Your task to perform on an android device: Clear the cart on amazon. Search for razer blade on amazon, select the first entry, add it to the cart, then select checkout. Image 0: 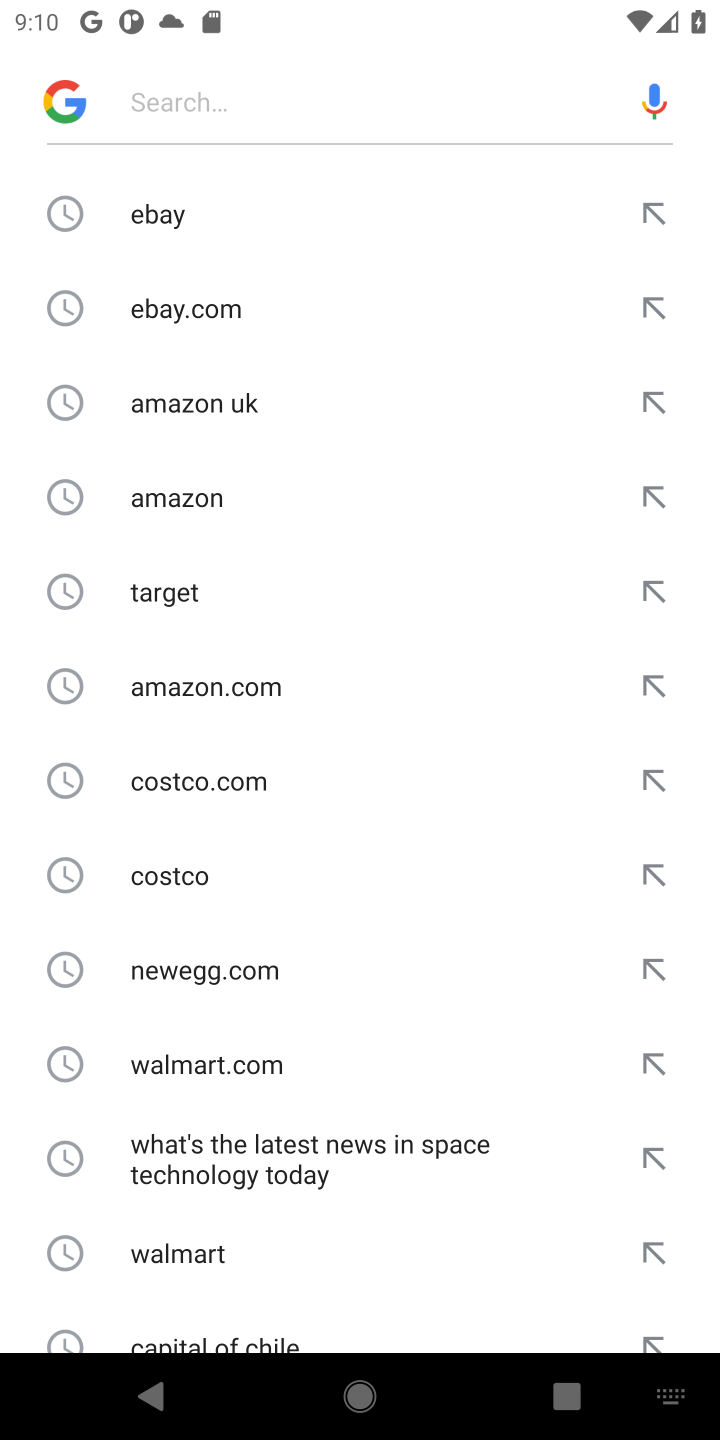
Step 0: click (241, 687)
Your task to perform on an android device: Clear the cart on amazon. Search for razer blade on amazon, select the first entry, add it to the cart, then select checkout. Image 1: 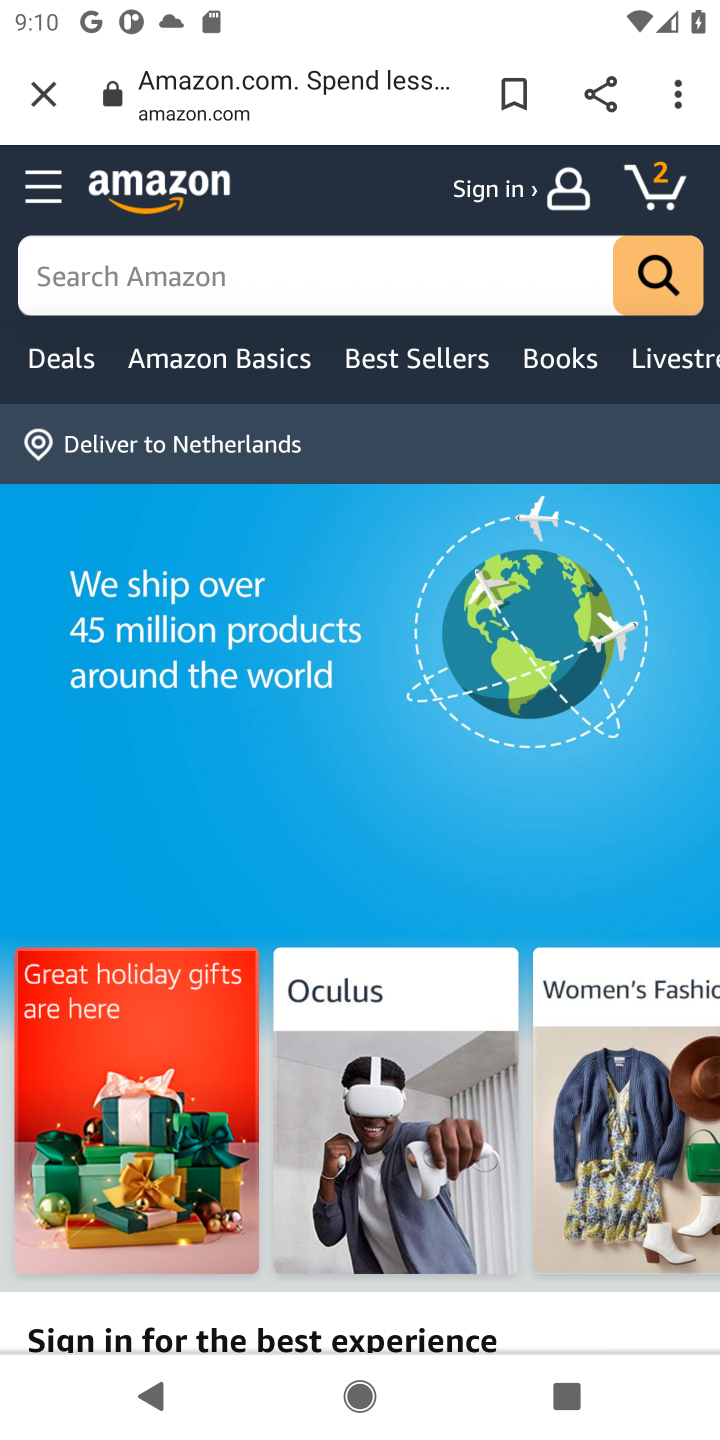
Step 1: click (654, 186)
Your task to perform on an android device: Clear the cart on amazon. Search for razer blade on amazon, select the first entry, add it to the cart, then select checkout. Image 2: 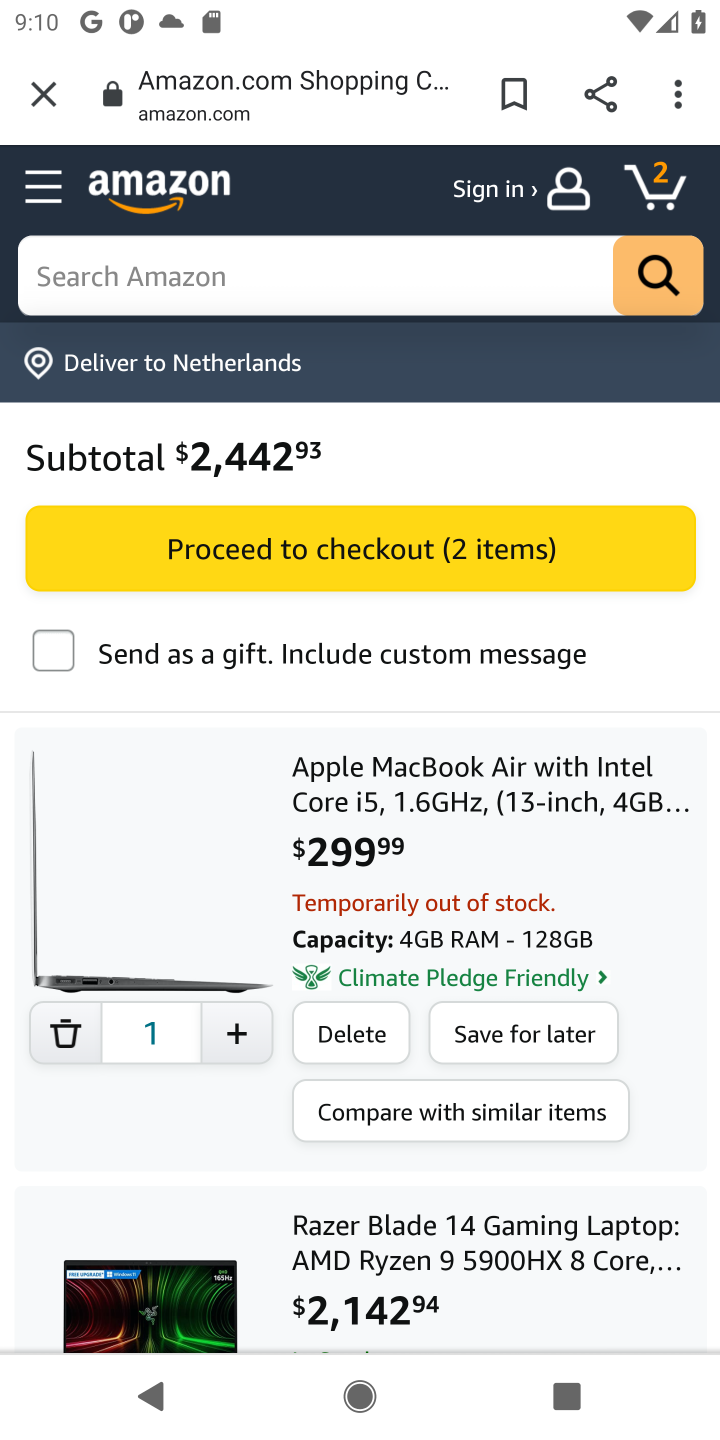
Step 2: click (355, 1031)
Your task to perform on an android device: Clear the cart on amazon. Search for razer blade on amazon, select the first entry, add it to the cart, then select checkout. Image 3: 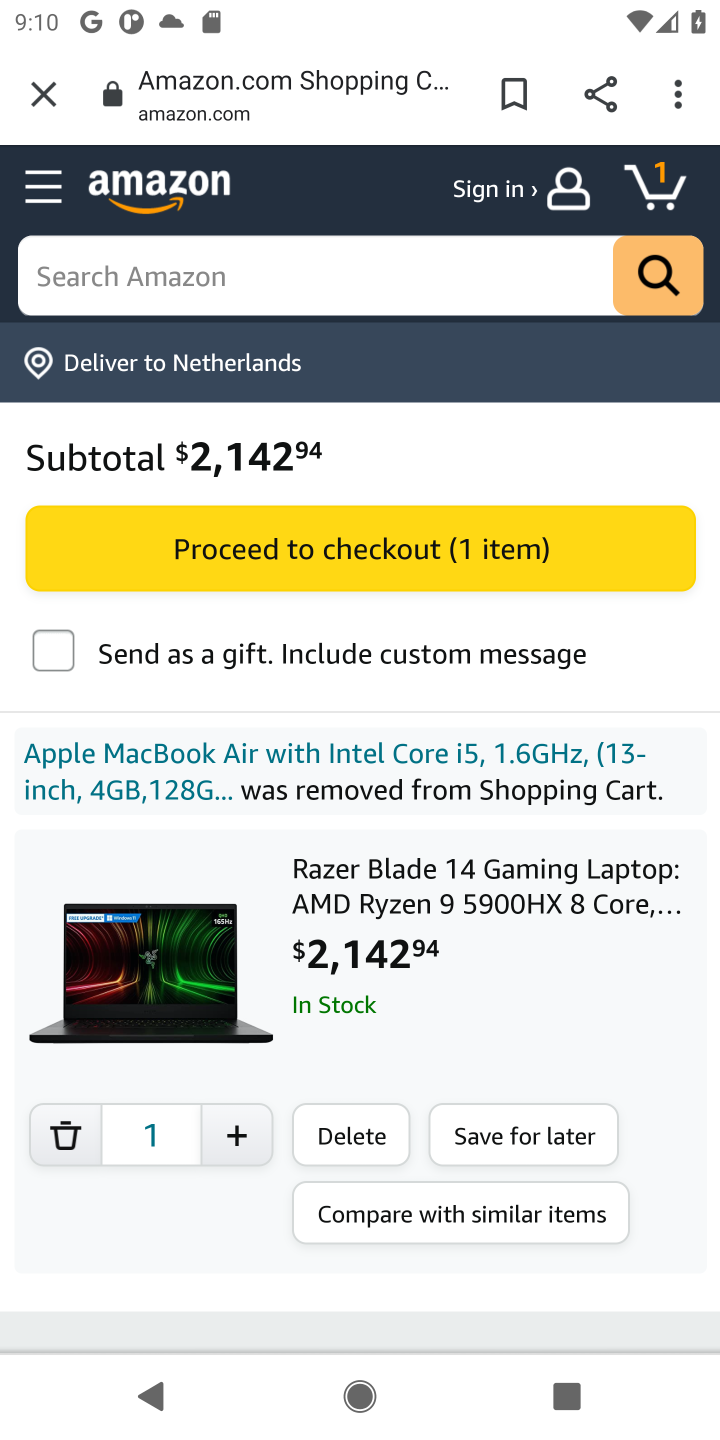
Step 3: click (364, 1132)
Your task to perform on an android device: Clear the cart on amazon. Search for razer blade on amazon, select the first entry, add it to the cart, then select checkout. Image 4: 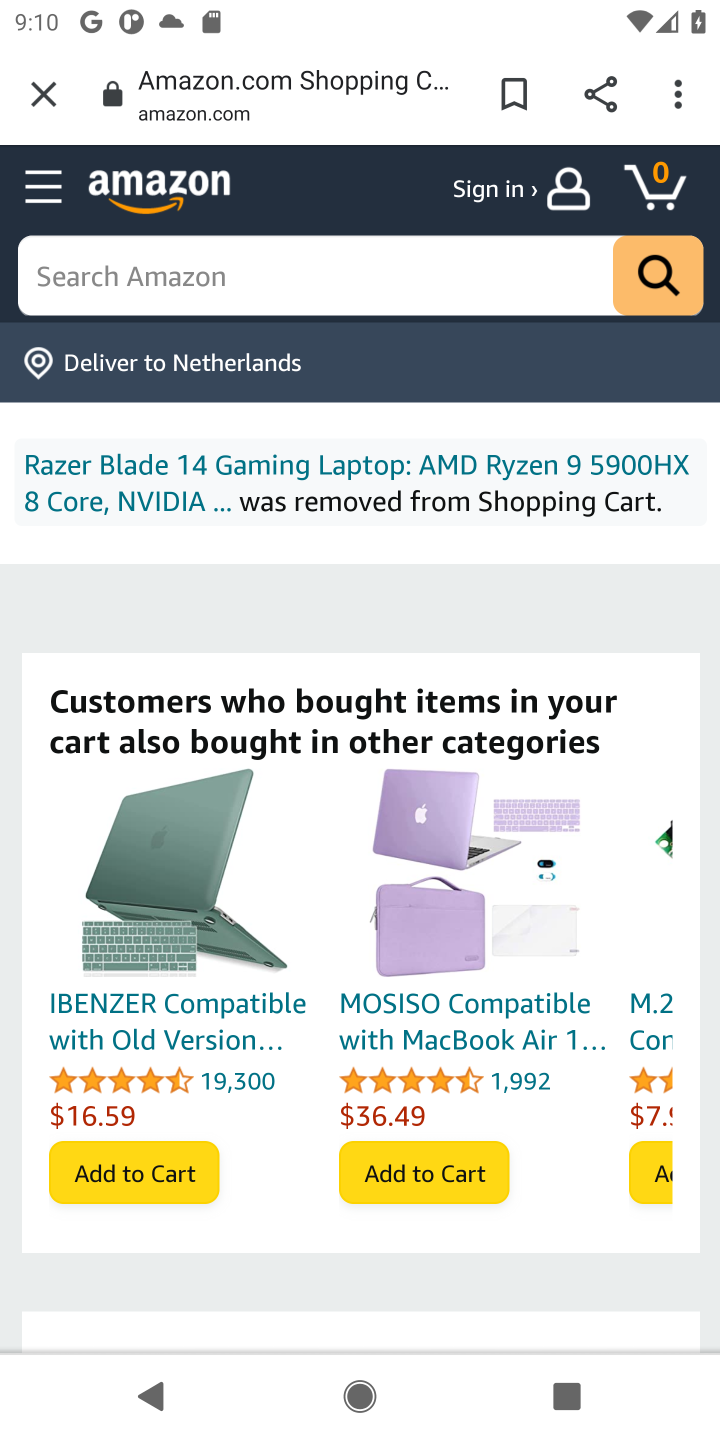
Step 4: click (164, 265)
Your task to perform on an android device: Clear the cart on amazon. Search for razer blade on amazon, select the first entry, add it to the cart, then select checkout. Image 5: 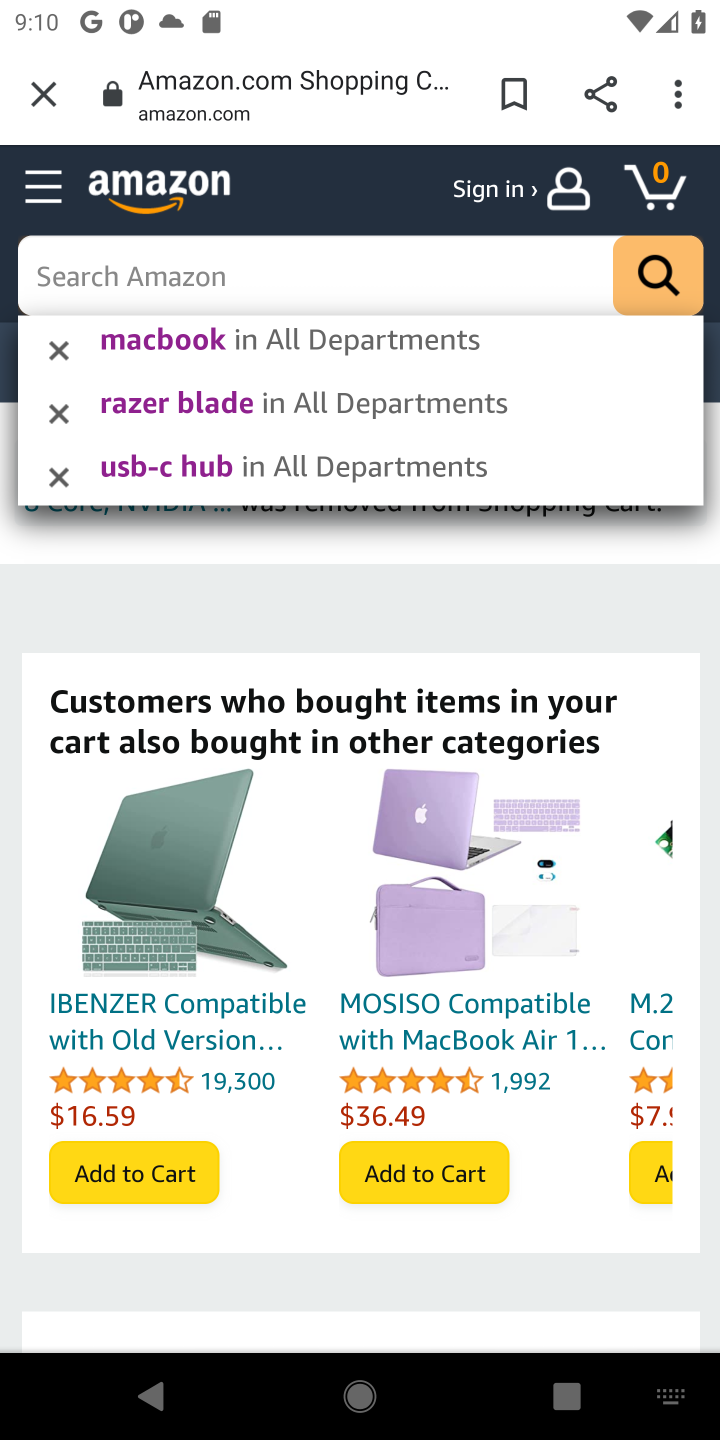
Step 5: type "razer blade"
Your task to perform on an android device: Clear the cart on amazon. Search for razer blade on amazon, select the first entry, add it to the cart, then select checkout. Image 6: 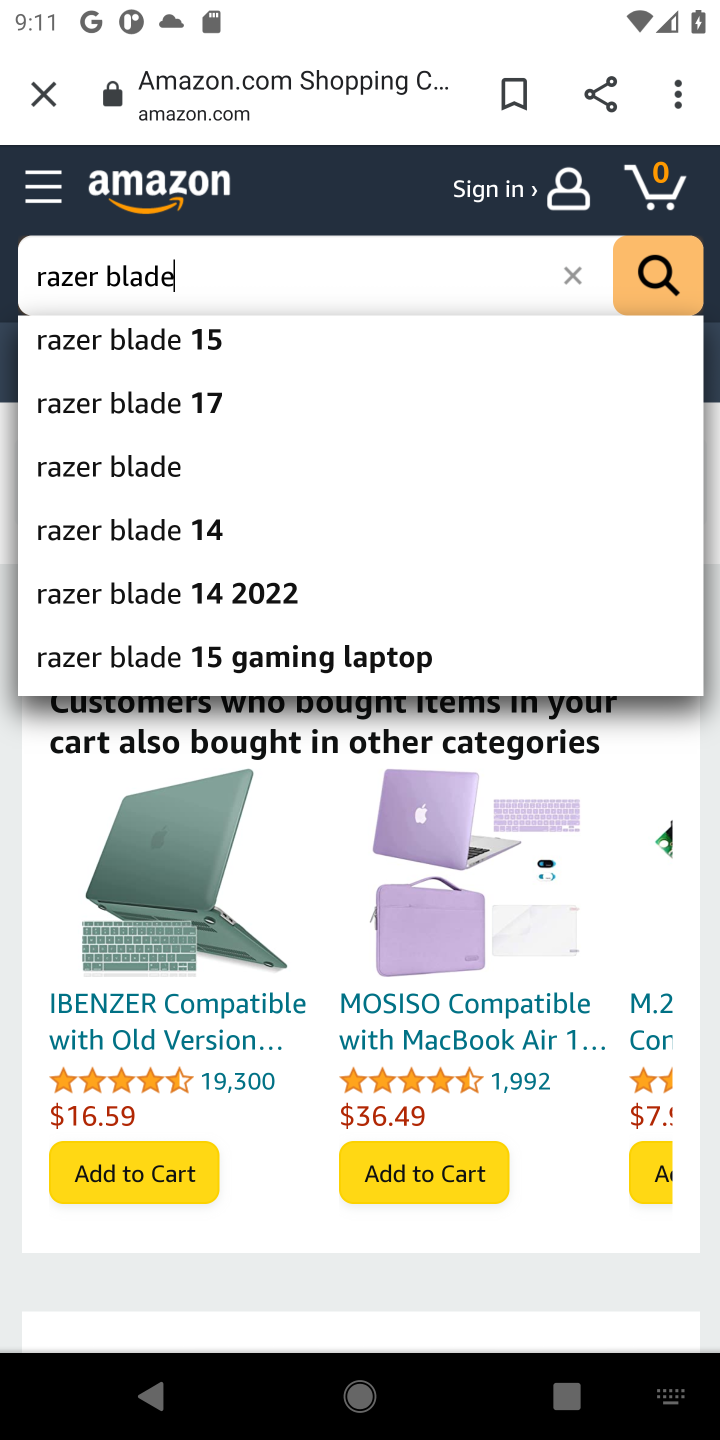
Step 6: click (113, 473)
Your task to perform on an android device: Clear the cart on amazon. Search for razer blade on amazon, select the first entry, add it to the cart, then select checkout. Image 7: 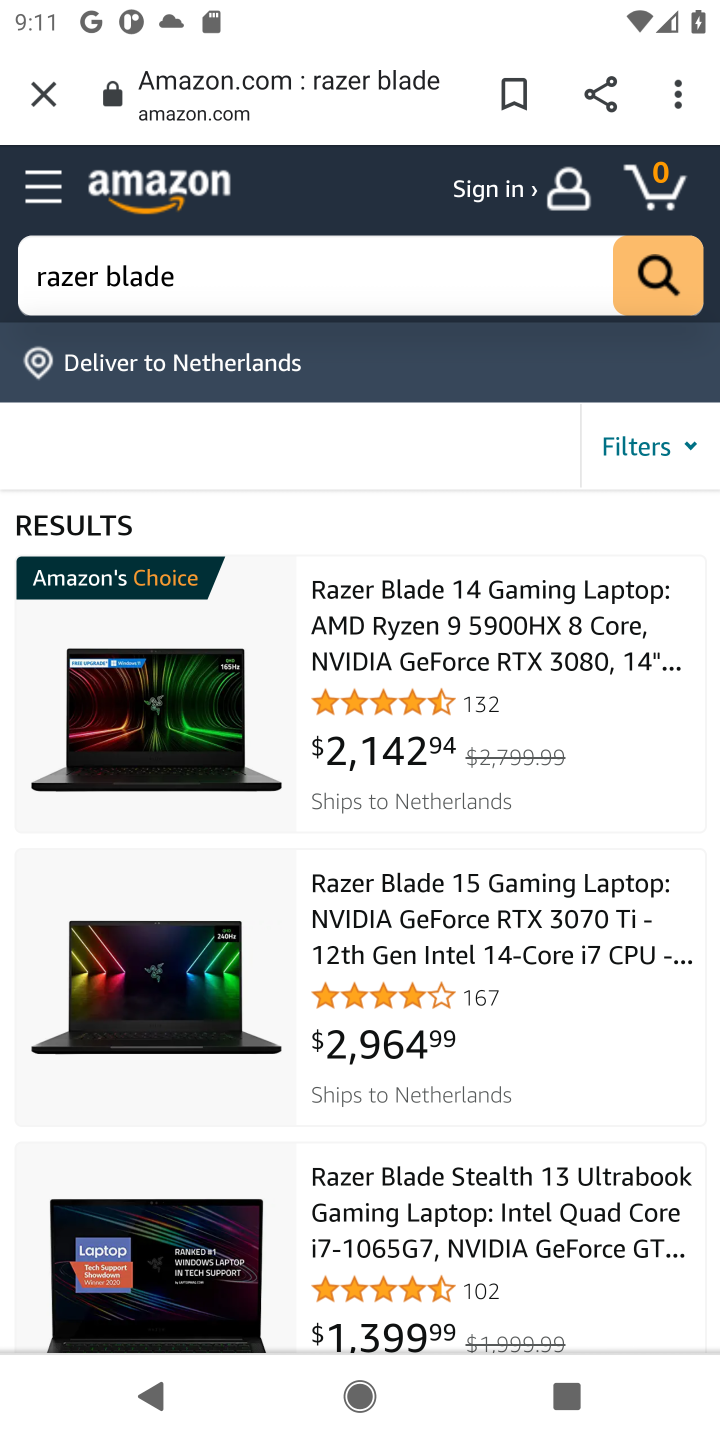
Step 7: click (399, 662)
Your task to perform on an android device: Clear the cart on amazon. Search for razer blade on amazon, select the first entry, add it to the cart, then select checkout. Image 8: 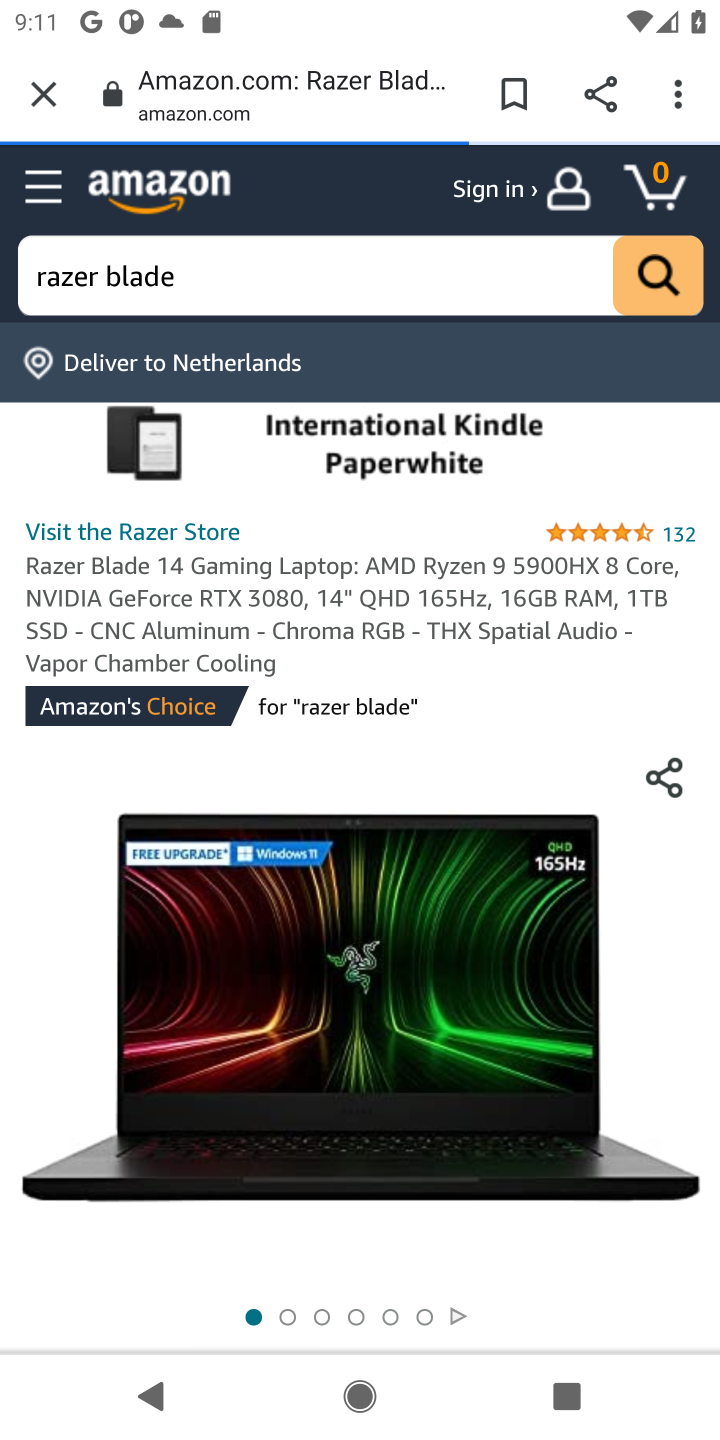
Step 8: drag from (388, 637) to (402, 363)
Your task to perform on an android device: Clear the cart on amazon. Search for razer blade on amazon, select the first entry, add it to the cart, then select checkout. Image 9: 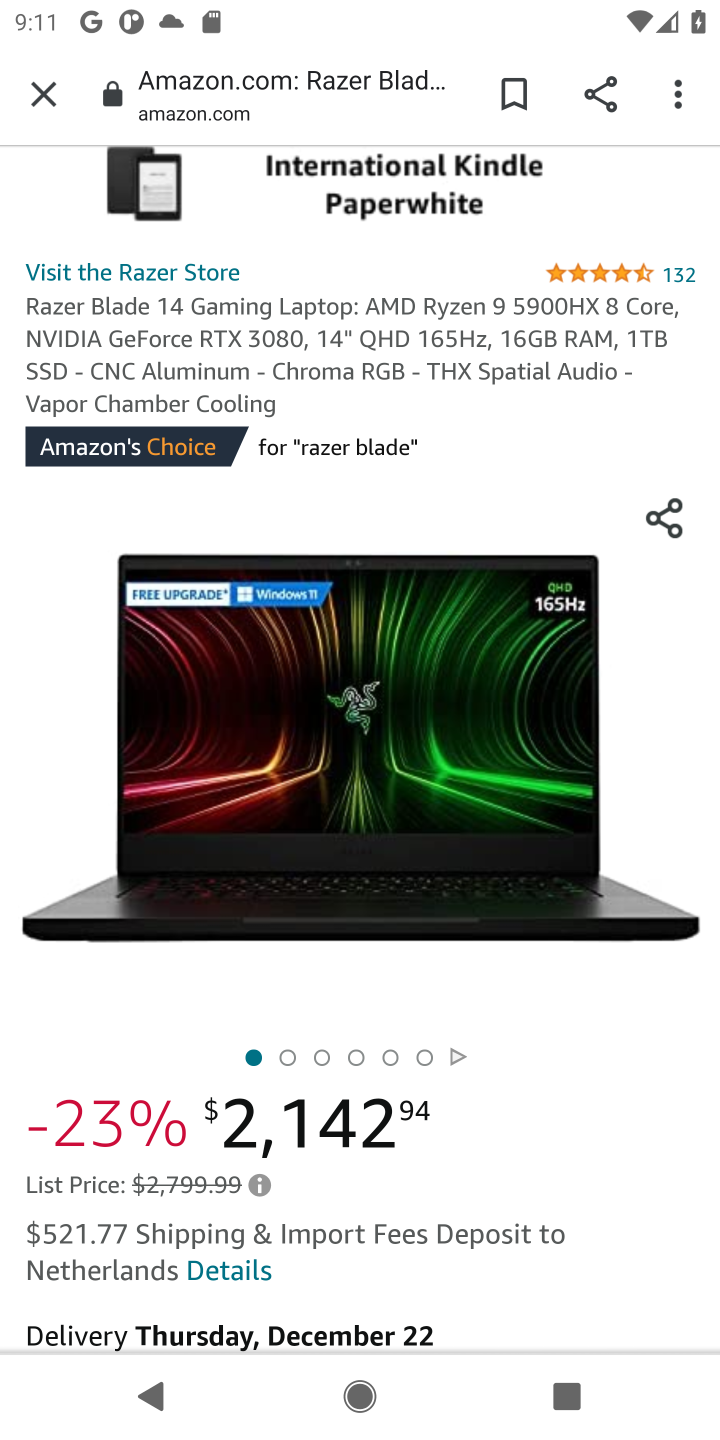
Step 9: drag from (375, 770) to (406, 371)
Your task to perform on an android device: Clear the cart on amazon. Search for razer blade on amazon, select the first entry, add it to the cart, then select checkout. Image 10: 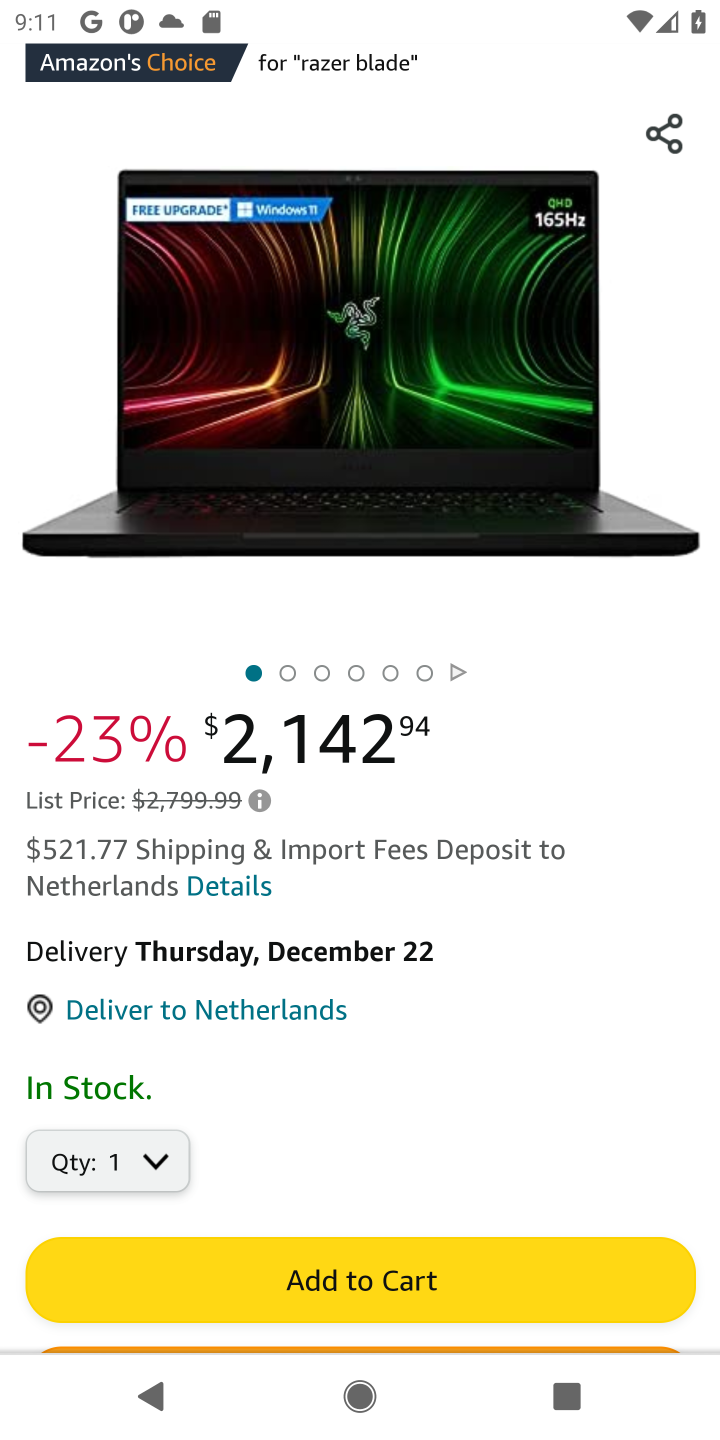
Step 10: click (311, 1284)
Your task to perform on an android device: Clear the cart on amazon. Search for razer blade on amazon, select the first entry, add it to the cart, then select checkout. Image 11: 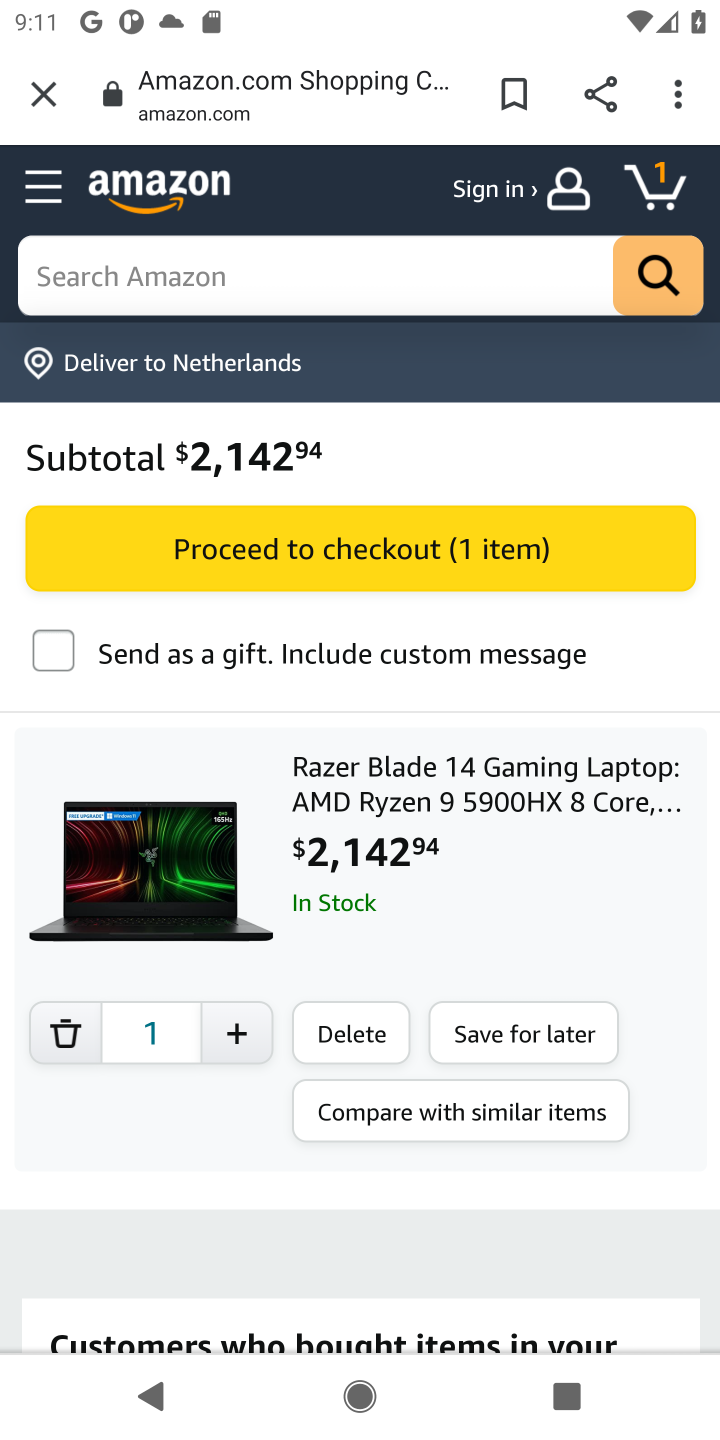
Step 11: click (344, 553)
Your task to perform on an android device: Clear the cart on amazon. Search for razer blade on amazon, select the first entry, add it to the cart, then select checkout. Image 12: 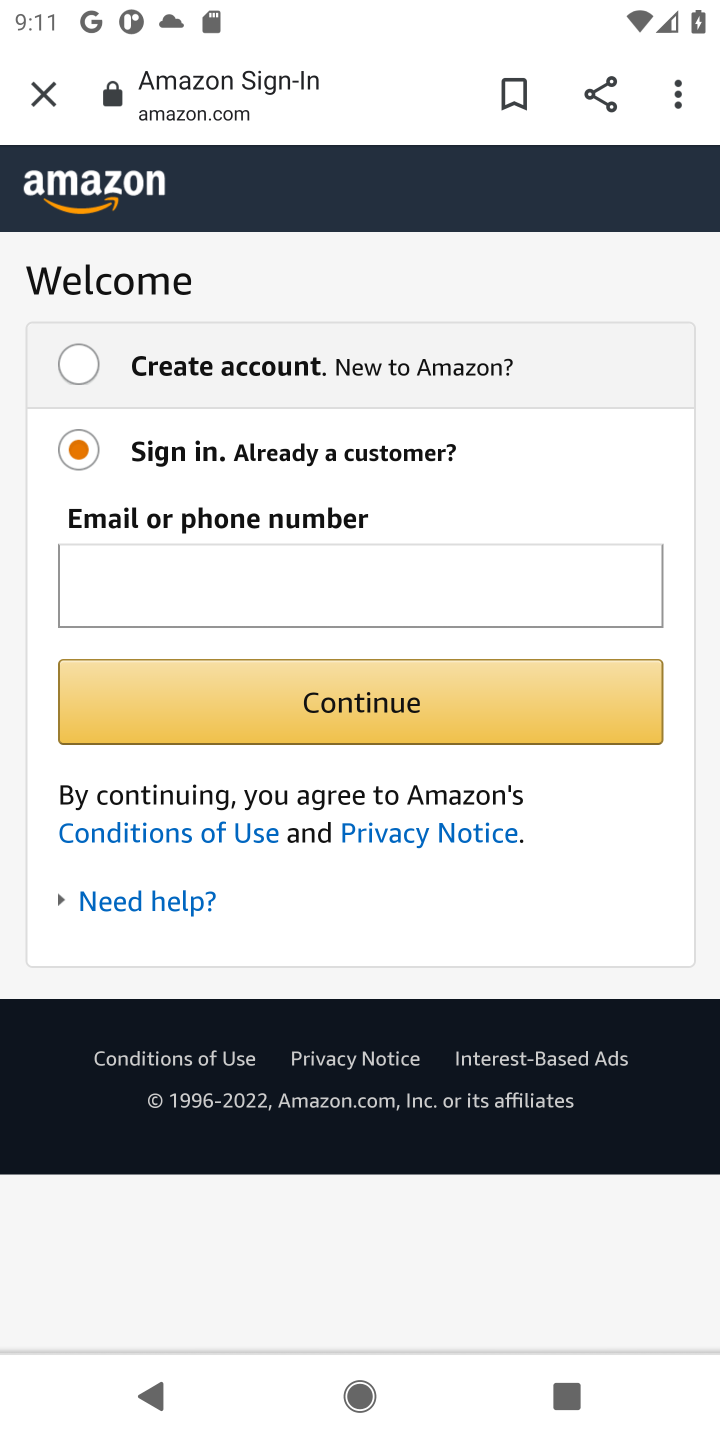
Step 12: task complete